Your task to perform on an android device: turn on airplane mode Image 0: 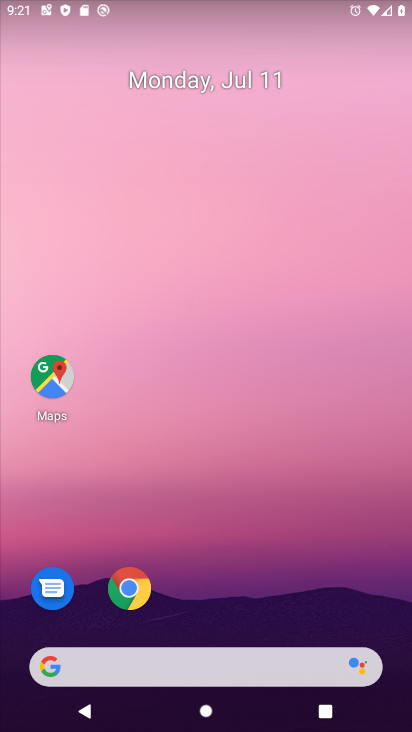
Step 0: drag from (369, 10) to (260, 484)
Your task to perform on an android device: turn on airplane mode Image 1: 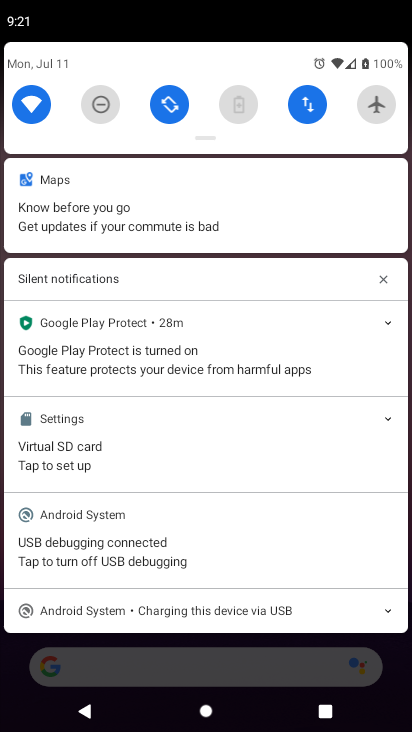
Step 1: click (366, 99)
Your task to perform on an android device: turn on airplane mode Image 2: 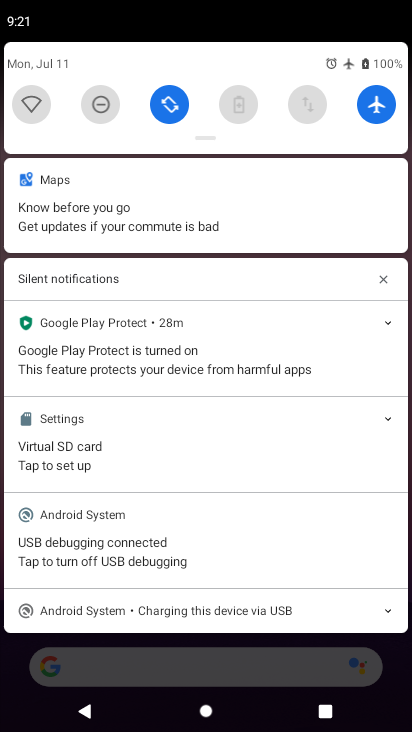
Step 2: task complete